Your task to perform on an android device: Show the shopping cart on ebay. Add "asus rog" to the cart on ebay, then select checkout. Image 0: 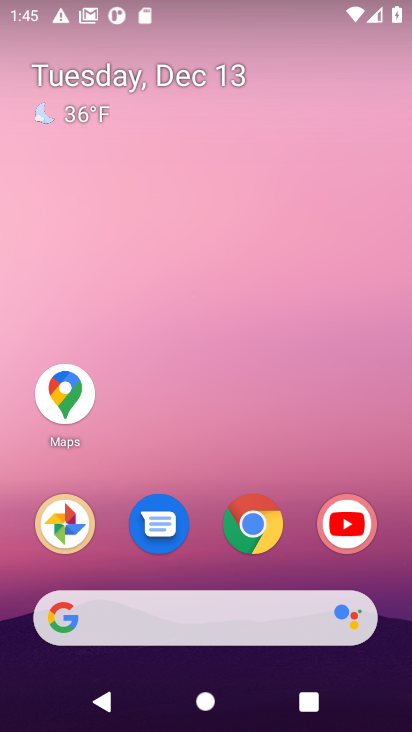
Step 0: click (254, 528)
Your task to perform on an android device: Show the shopping cart on ebay. Add "asus rog" to the cart on ebay, then select checkout. Image 1: 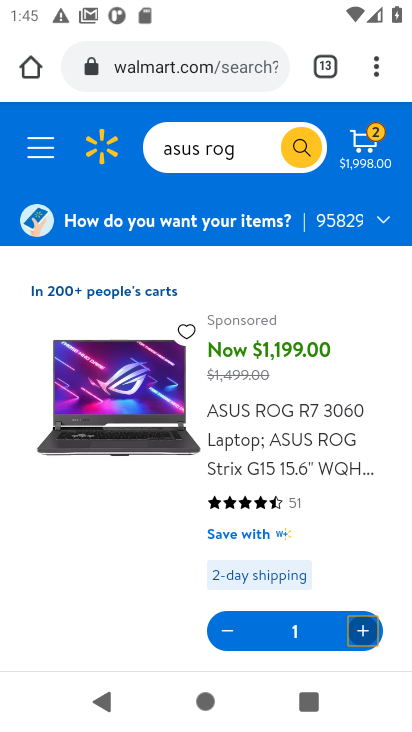
Step 1: click (170, 78)
Your task to perform on an android device: Show the shopping cart on ebay. Add "asus rog" to the cart on ebay, then select checkout. Image 2: 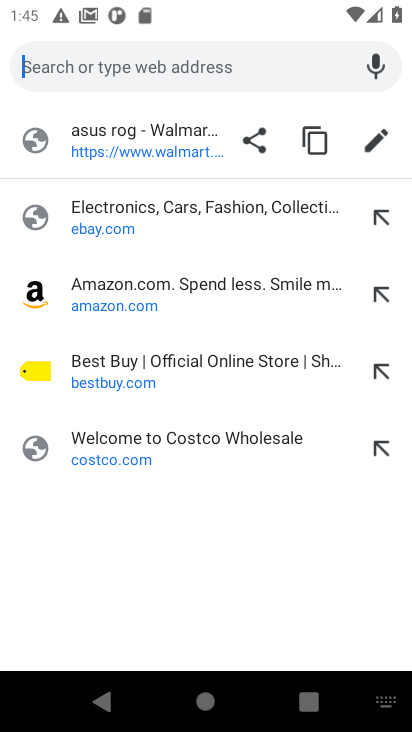
Step 2: click (91, 225)
Your task to perform on an android device: Show the shopping cart on ebay. Add "asus rog" to the cart on ebay, then select checkout. Image 3: 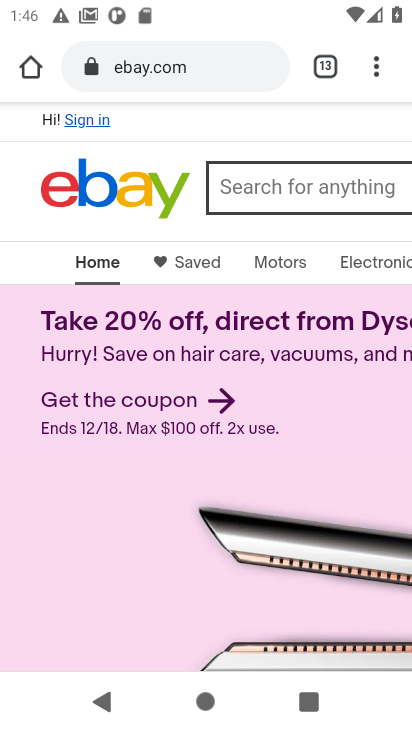
Step 3: drag from (317, 226) to (15, 207)
Your task to perform on an android device: Show the shopping cart on ebay. Add "asus rog" to the cart on ebay, then select checkout. Image 4: 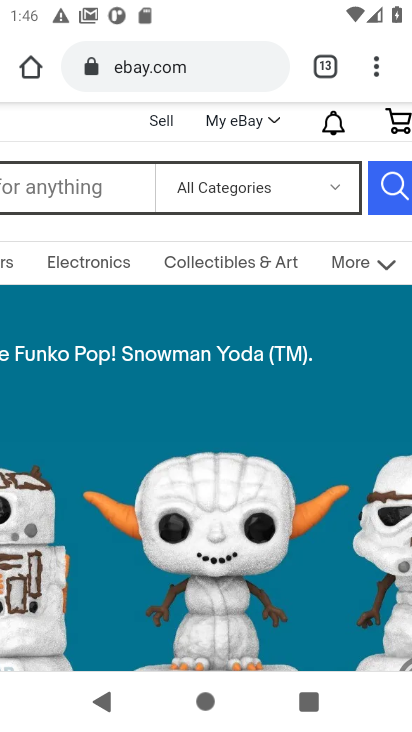
Step 4: click (384, 120)
Your task to perform on an android device: Show the shopping cart on ebay. Add "asus rog" to the cart on ebay, then select checkout. Image 5: 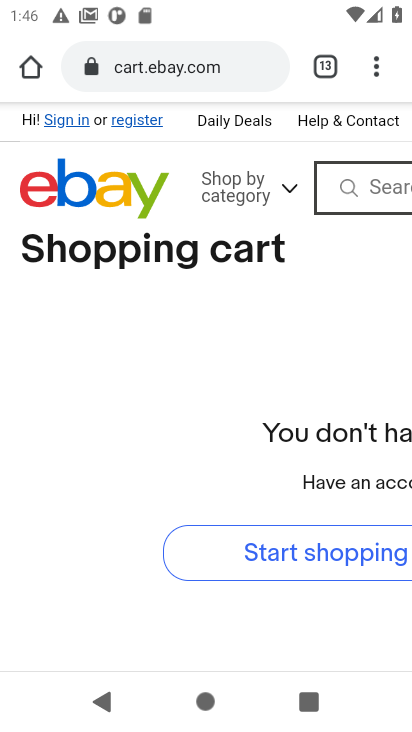
Step 5: click (374, 189)
Your task to perform on an android device: Show the shopping cart on ebay. Add "asus rog" to the cart on ebay, then select checkout. Image 6: 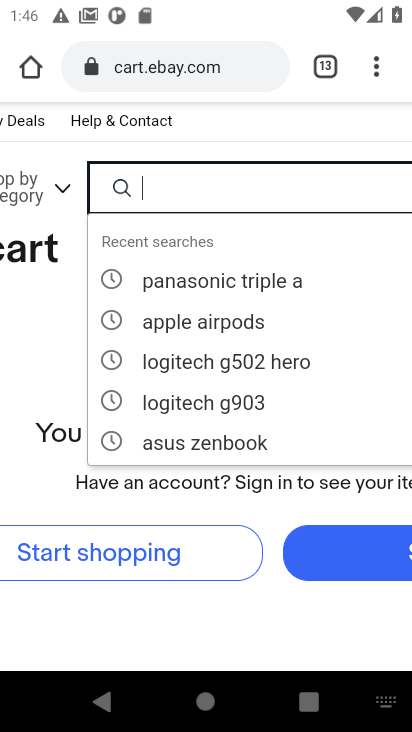
Step 6: type "asus rog"
Your task to perform on an android device: Show the shopping cart on ebay. Add "asus rog" to the cart on ebay, then select checkout. Image 7: 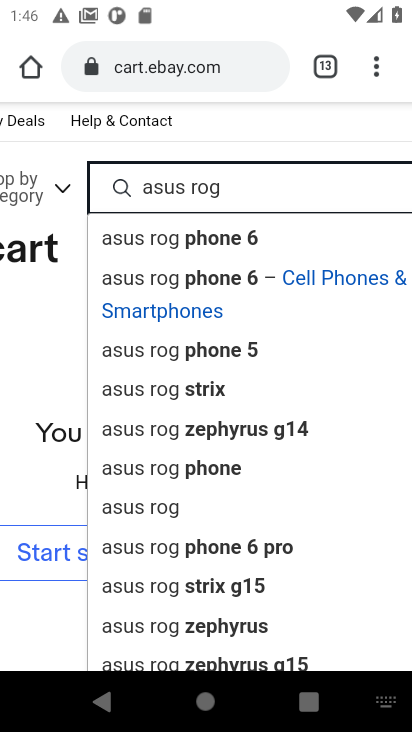
Step 7: click (168, 514)
Your task to perform on an android device: Show the shopping cart on ebay. Add "asus rog" to the cart on ebay, then select checkout. Image 8: 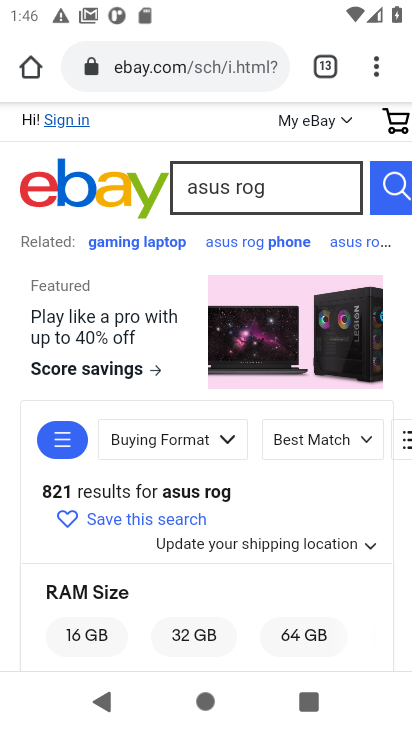
Step 8: drag from (219, 540) to (189, 133)
Your task to perform on an android device: Show the shopping cart on ebay. Add "asus rog" to the cart on ebay, then select checkout. Image 9: 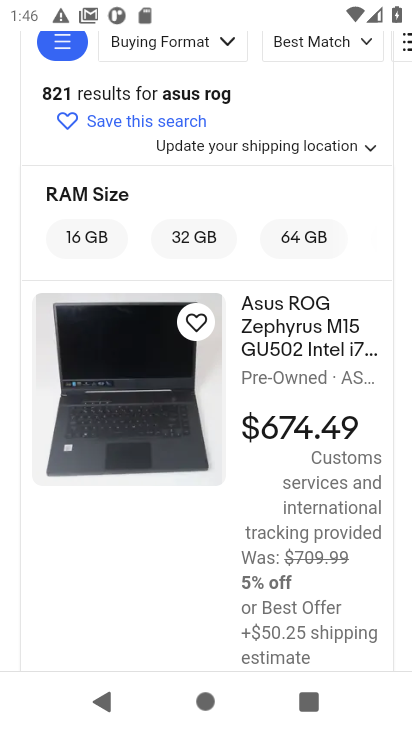
Step 9: click (284, 352)
Your task to perform on an android device: Show the shopping cart on ebay. Add "asus rog" to the cart on ebay, then select checkout. Image 10: 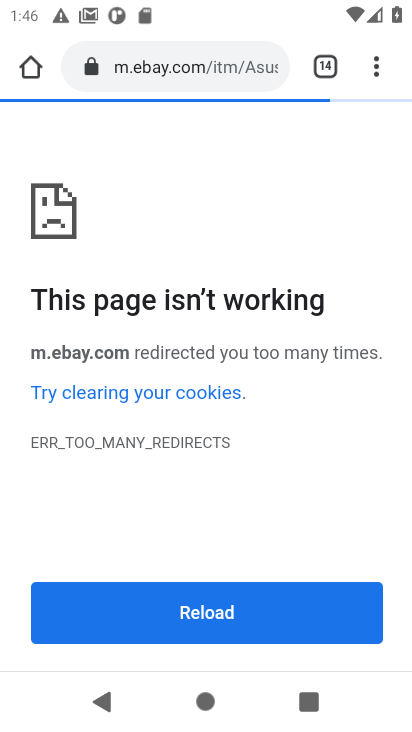
Step 10: task complete